Your task to perform on an android device: check out phone information Image 0: 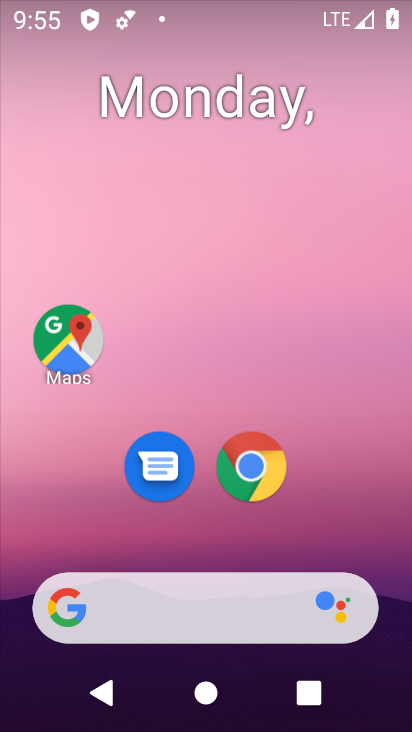
Step 0: drag from (340, 500) to (302, 138)
Your task to perform on an android device: check out phone information Image 1: 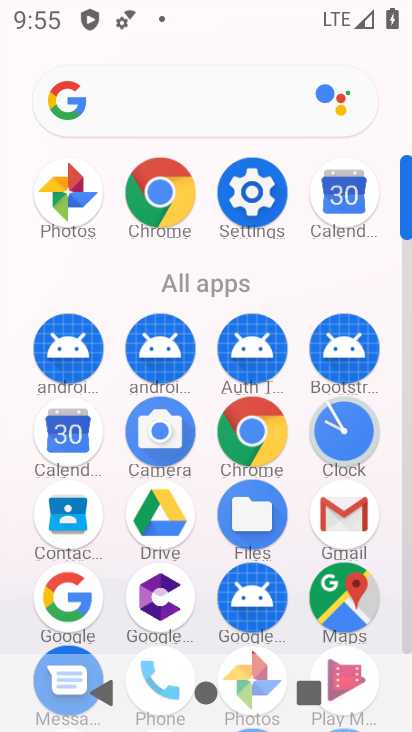
Step 1: click (407, 593)
Your task to perform on an android device: check out phone information Image 2: 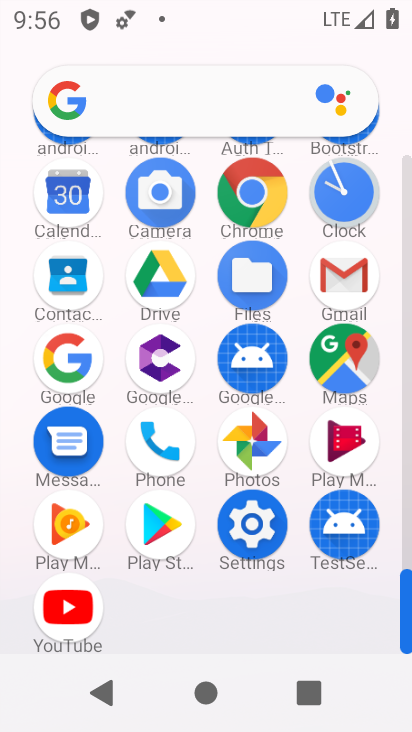
Step 2: click (142, 445)
Your task to perform on an android device: check out phone information Image 3: 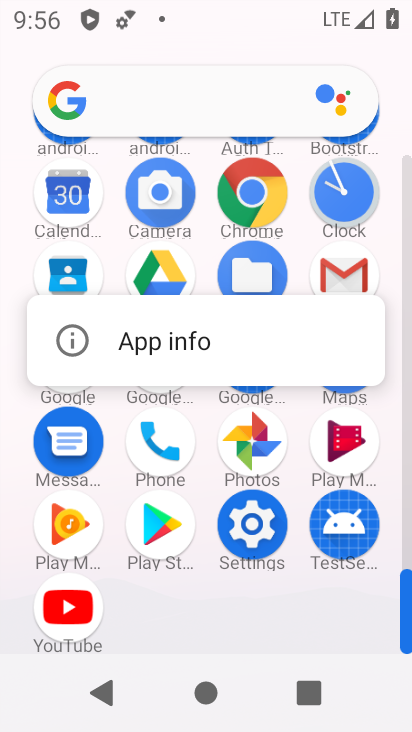
Step 3: click (136, 354)
Your task to perform on an android device: check out phone information Image 4: 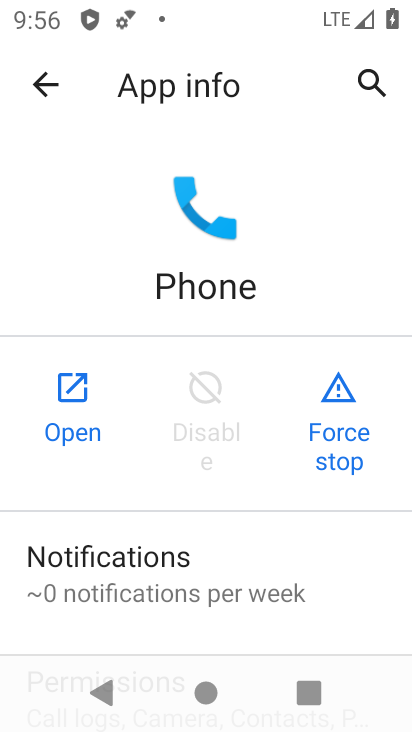
Step 4: task complete